Your task to perform on an android device: What's the weather? Image 0: 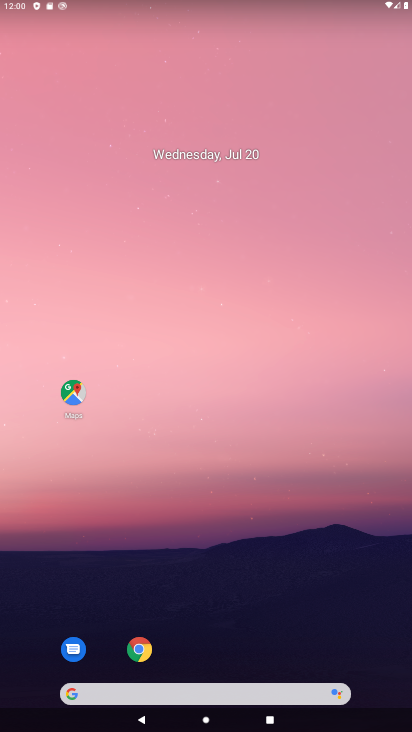
Step 0: click (138, 688)
Your task to perform on an android device: What's the weather? Image 1: 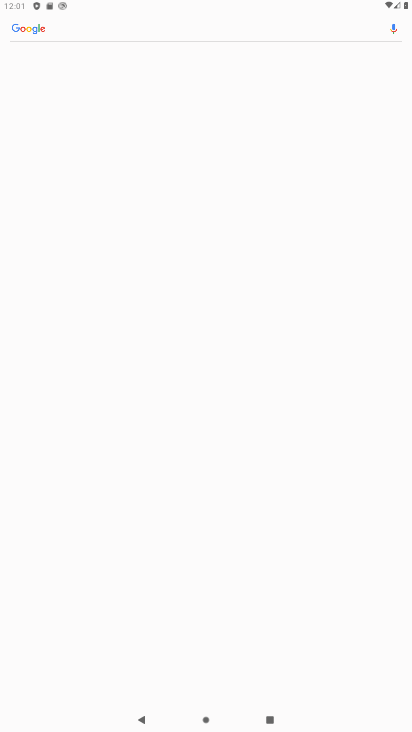
Step 1: click (287, 36)
Your task to perform on an android device: What's the weather? Image 2: 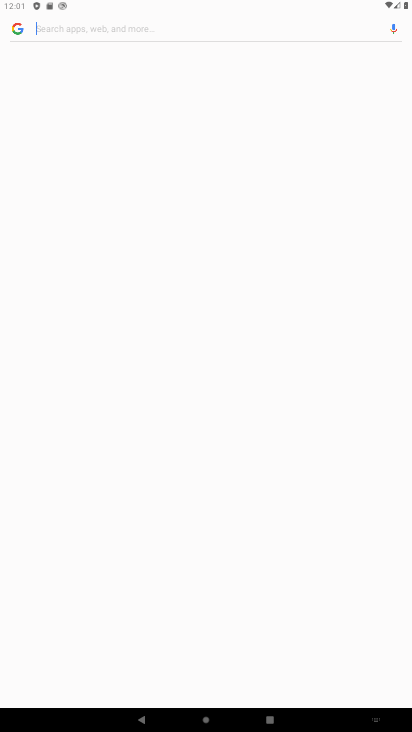
Step 2: type "whats the weather"
Your task to perform on an android device: What's the weather? Image 3: 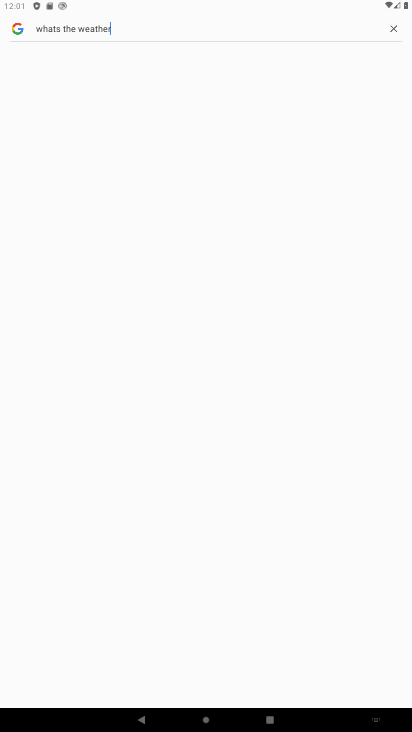
Step 3: press enter
Your task to perform on an android device: What's the weather? Image 4: 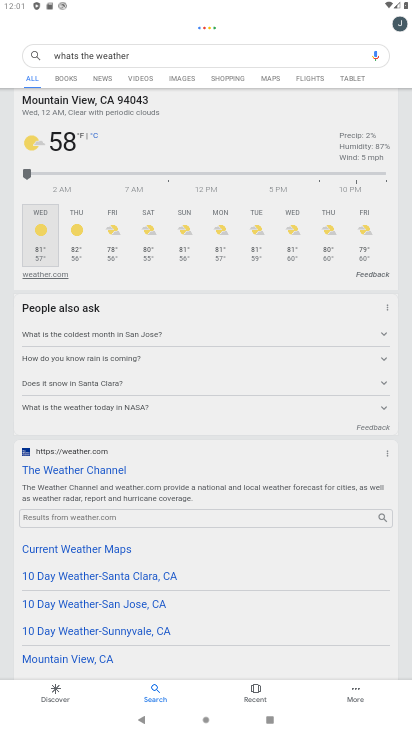
Step 4: task complete